Your task to perform on an android device: open wifi settings Image 0: 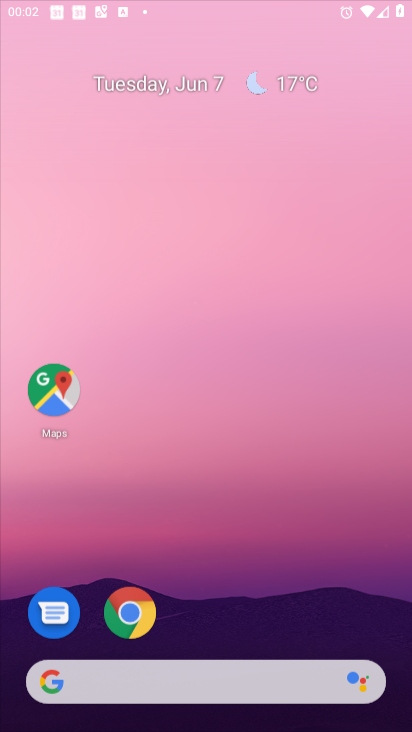
Step 0: click (140, 612)
Your task to perform on an android device: open wifi settings Image 1: 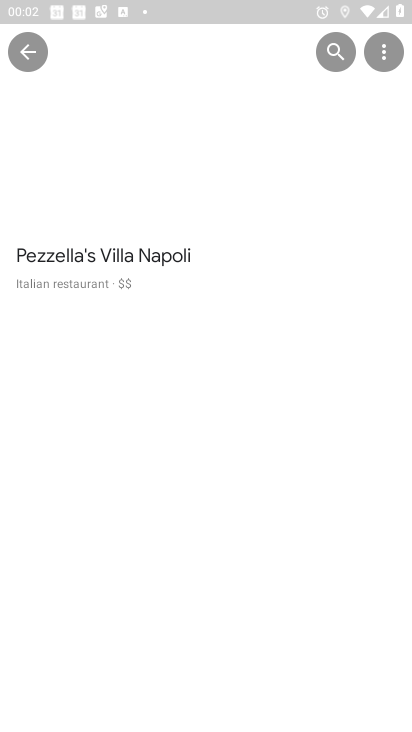
Step 1: click (336, 51)
Your task to perform on an android device: open wifi settings Image 2: 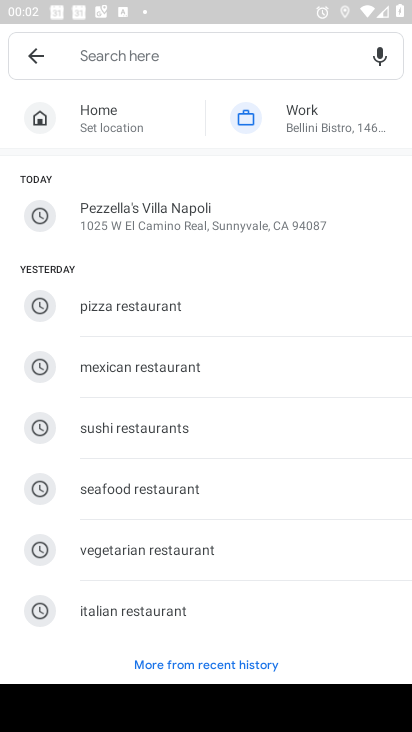
Step 2: click (56, 63)
Your task to perform on an android device: open wifi settings Image 3: 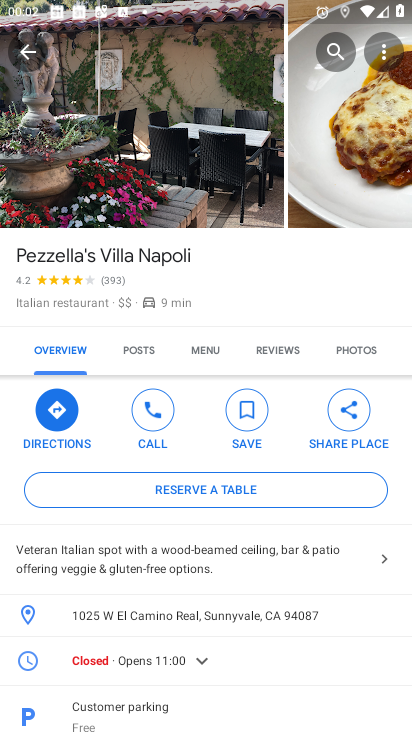
Step 3: press home button
Your task to perform on an android device: open wifi settings Image 4: 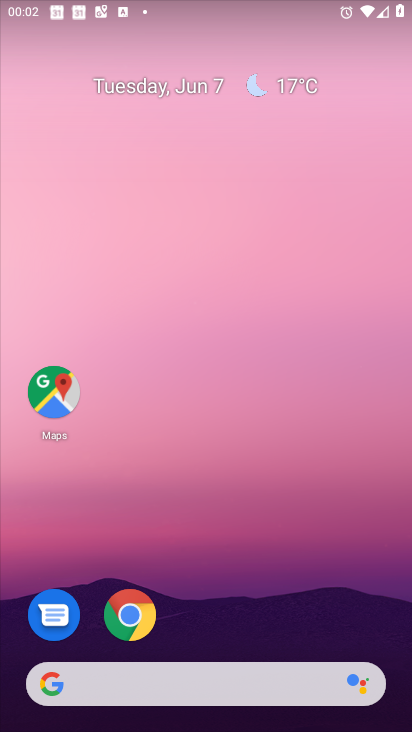
Step 4: drag from (380, 657) to (371, 189)
Your task to perform on an android device: open wifi settings Image 5: 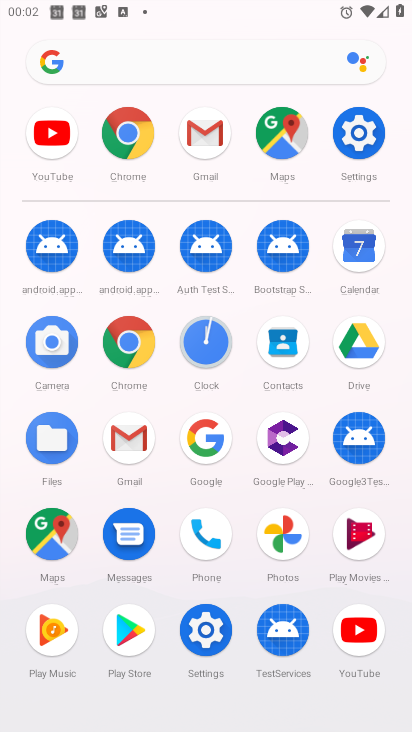
Step 5: click (365, 122)
Your task to perform on an android device: open wifi settings Image 6: 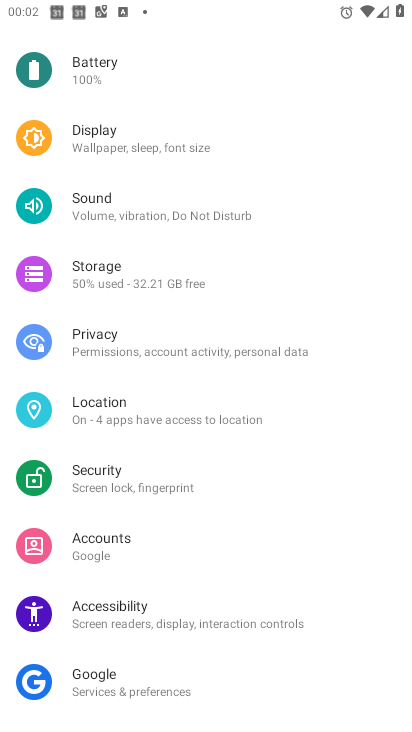
Step 6: drag from (158, 112) to (181, 365)
Your task to perform on an android device: open wifi settings Image 7: 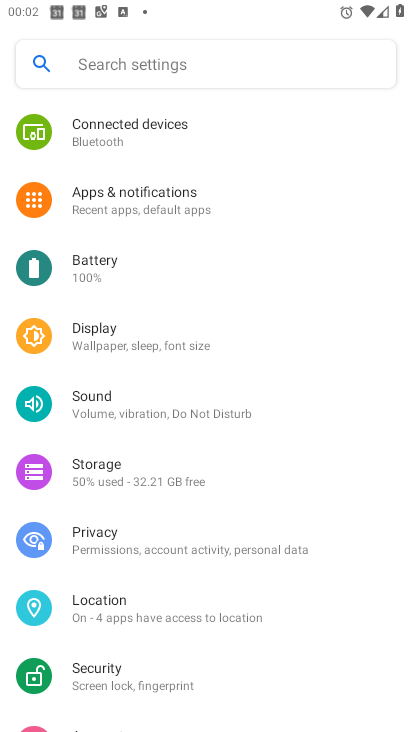
Step 7: drag from (227, 116) to (234, 464)
Your task to perform on an android device: open wifi settings Image 8: 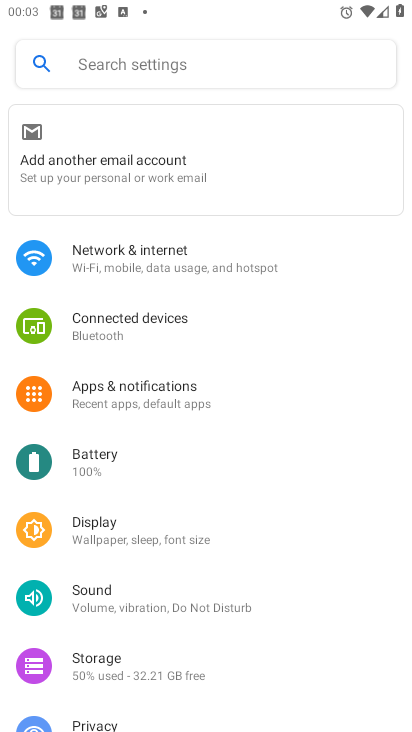
Step 8: click (138, 267)
Your task to perform on an android device: open wifi settings Image 9: 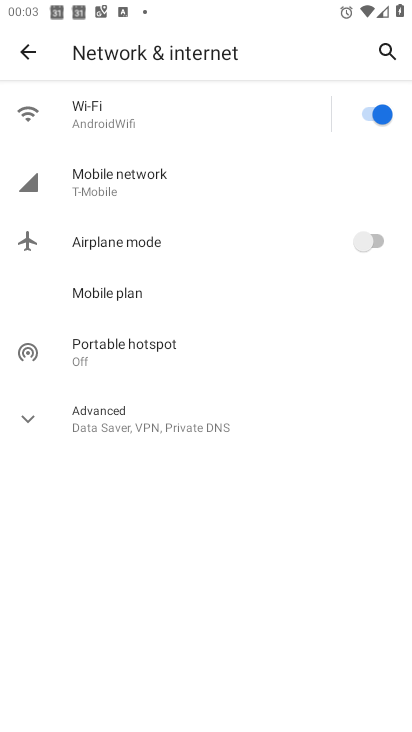
Step 9: click (146, 112)
Your task to perform on an android device: open wifi settings Image 10: 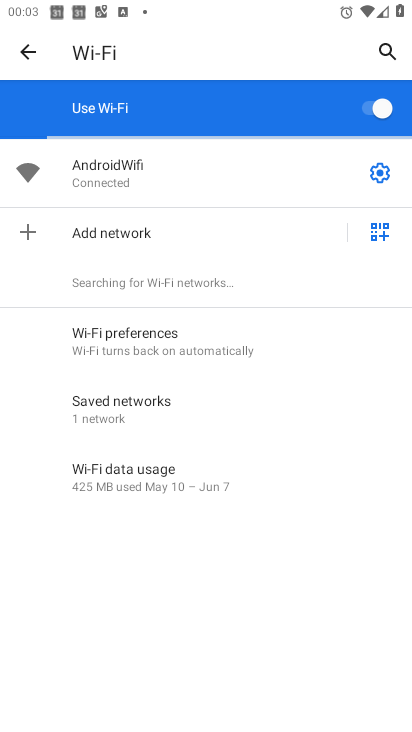
Step 10: click (372, 168)
Your task to perform on an android device: open wifi settings Image 11: 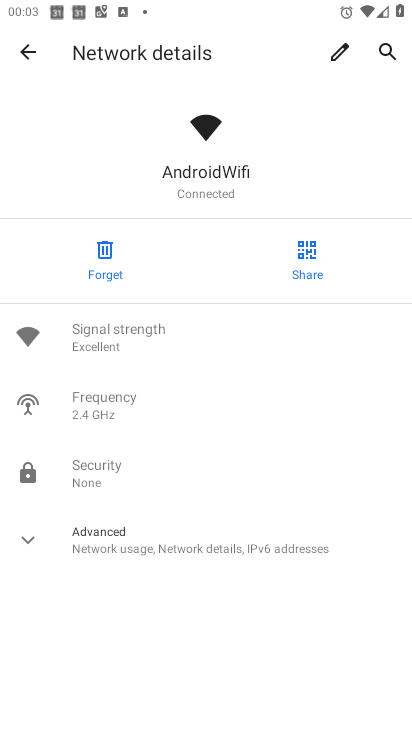
Step 11: task complete